Your task to perform on an android device: Open the stopwatch Image 0: 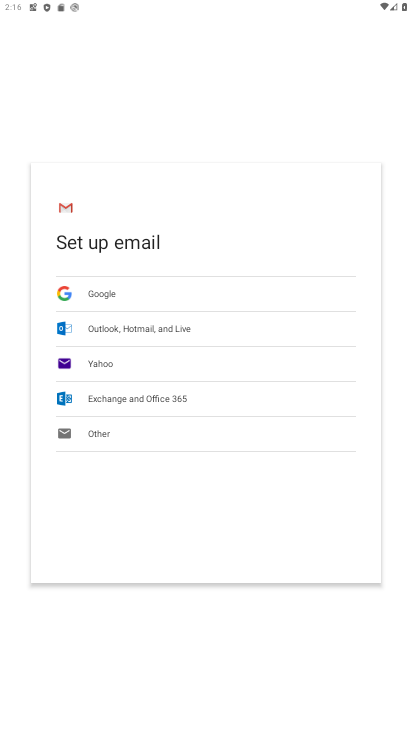
Step 0: press home button
Your task to perform on an android device: Open the stopwatch Image 1: 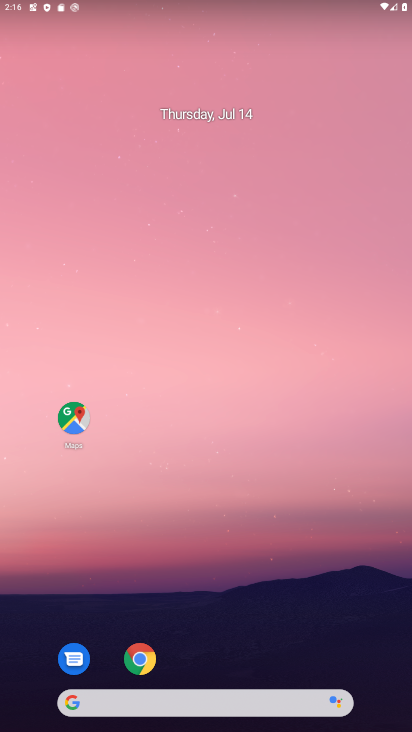
Step 1: drag from (303, 537) to (310, 22)
Your task to perform on an android device: Open the stopwatch Image 2: 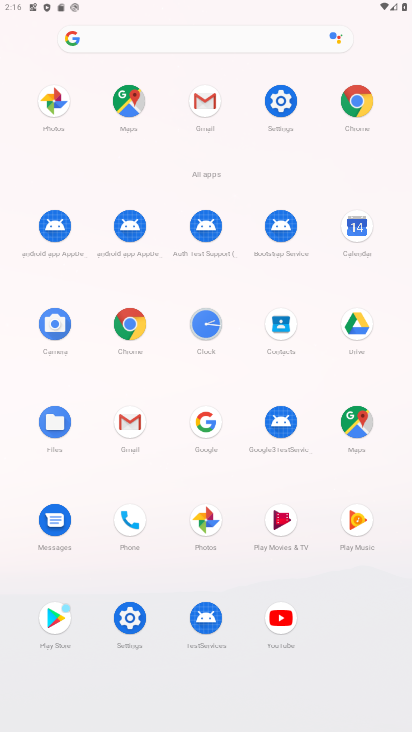
Step 2: click (203, 323)
Your task to perform on an android device: Open the stopwatch Image 3: 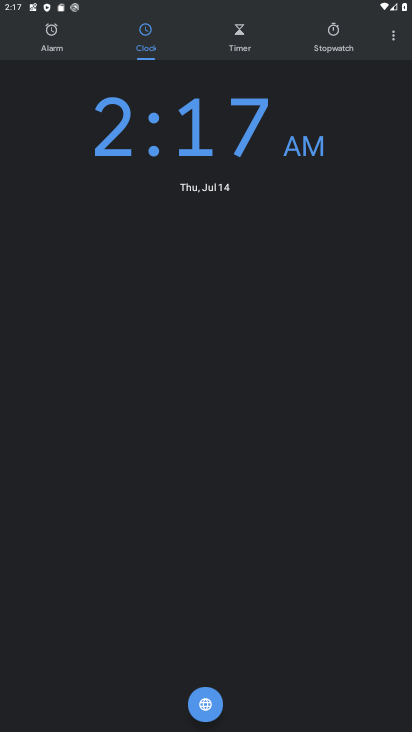
Step 3: click (336, 31)
Your task to perform on an android device: Open the stopwatch Image 4: 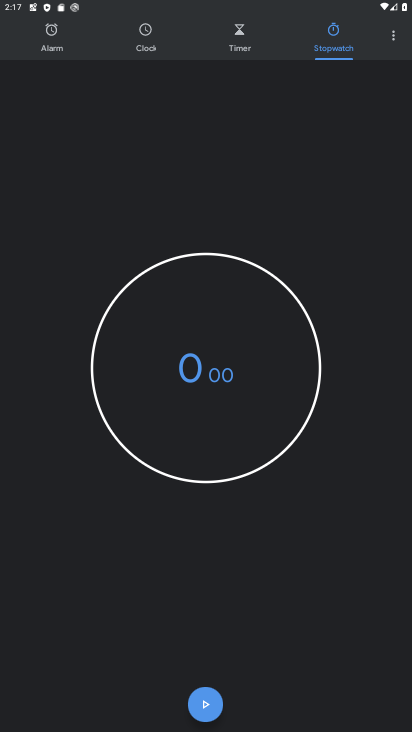
Step 4: task complete